Your task to perform on an android device: check google app version Image 0: 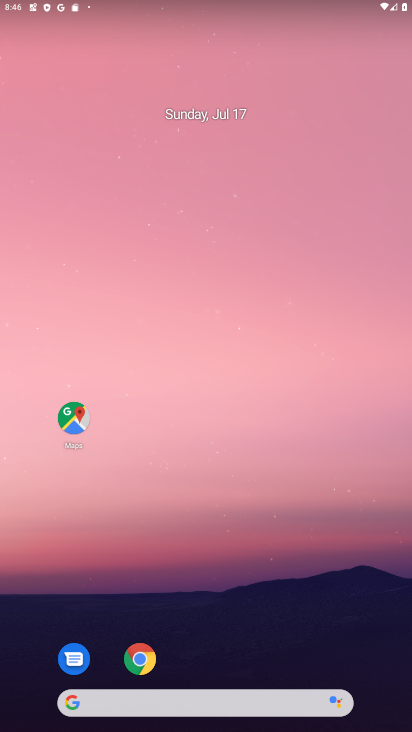
Step 0: drag from (237, 611) to (189, 155)
Your task to perform on an android device: check google app version Image 1: 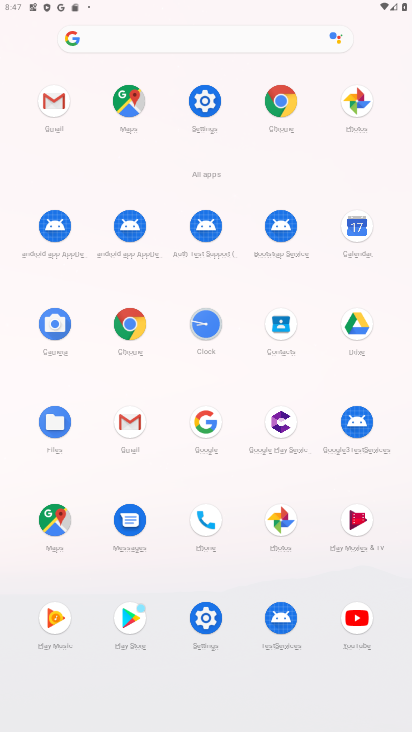
Step 1: click (205, 421)
Your task to perform on an android device: check google app version Image 2: 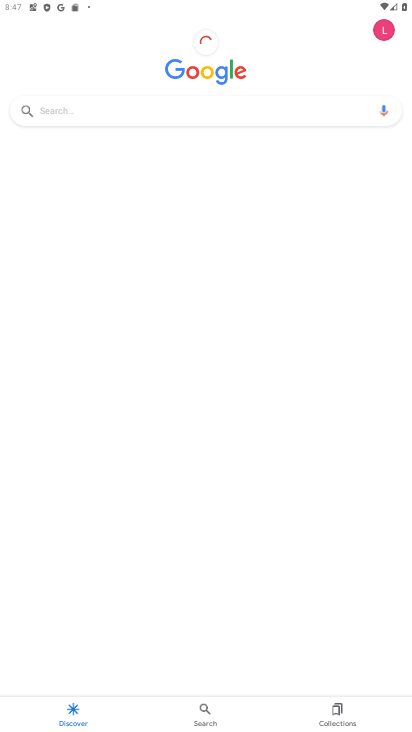
Step 2: click (379, 30)
Your task to perform on an android device: check google app version Image 3: 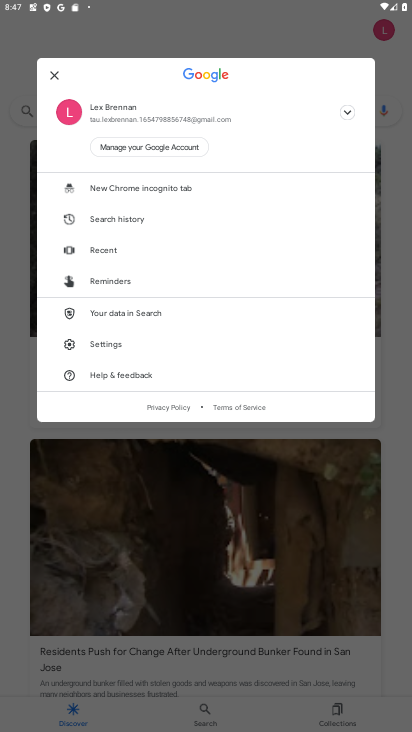
Step 3: click (107, 345)
Your task to perform on an android device: check google app version Image 4: 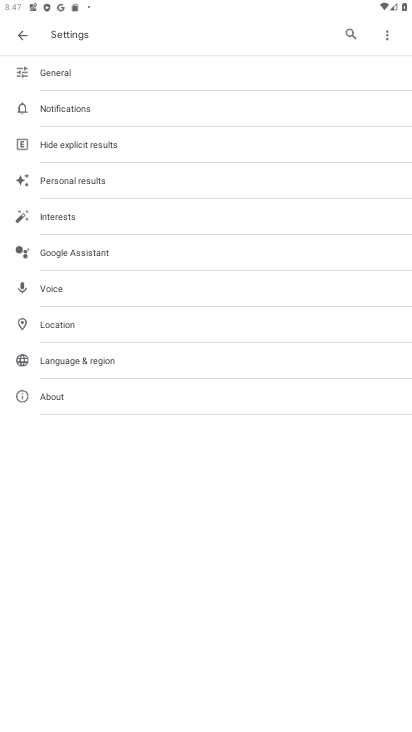
Step 4: click (40, 394)
Your task to perform on an android device: check google app version Image 5: 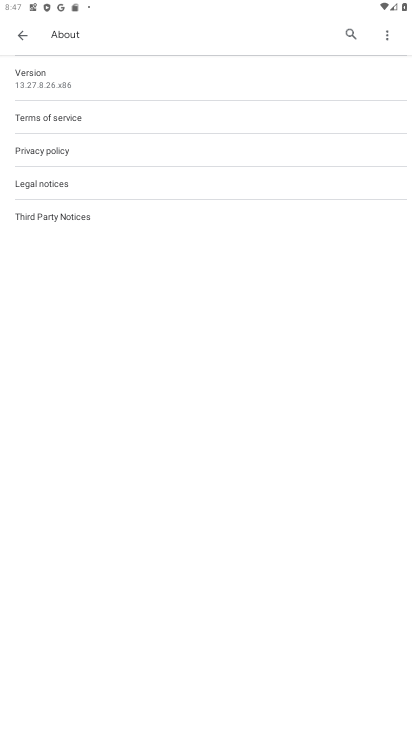
Step 5: task complete